Your task to perform on an android device: turn off translation in the chrome app Image 0: 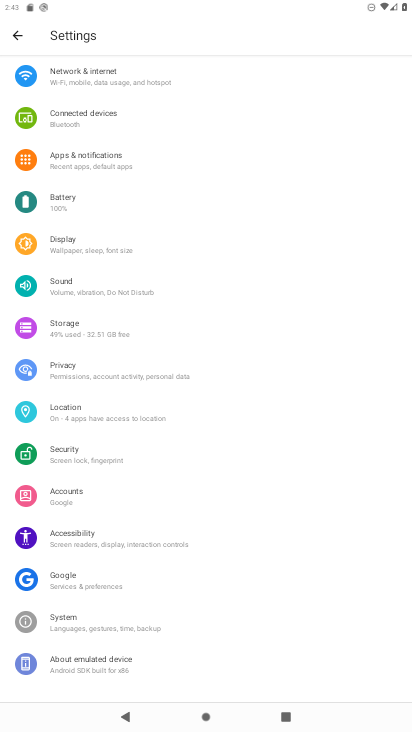
Step 0: press home button
Your task to perform on an android device: turn off translation in the chrome app Image 1: 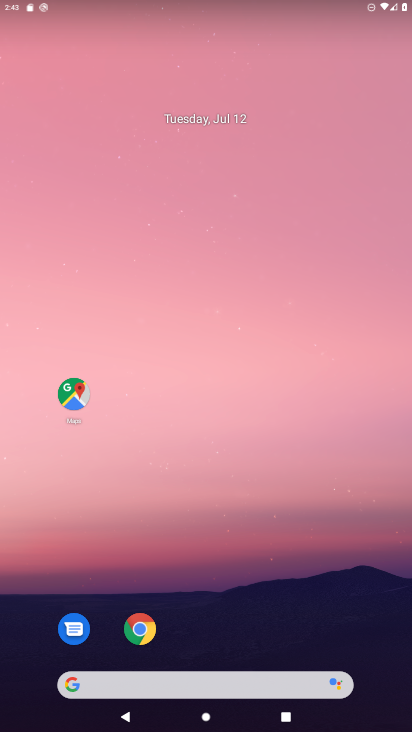
Step 1: drag from (179, 679) to (263, 217)
Your task to perform on an android device: turn off translation in the chrome app Image 2: 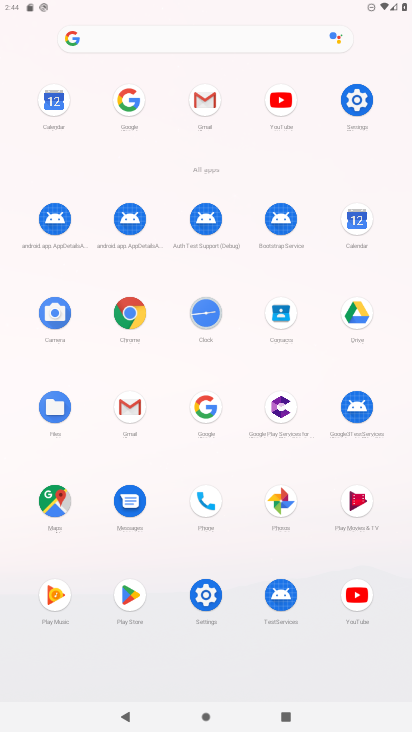
Step 2: click (130, 314)
Your task to perform on an android device: turn off translation in the chrome app Image 3: 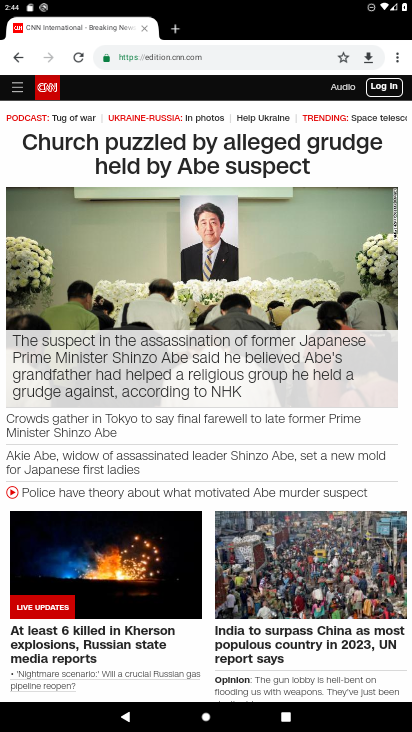
Step 3: click (398, 54)
Your task to perform on an android device: turn off translation in the chrome app Image 4: 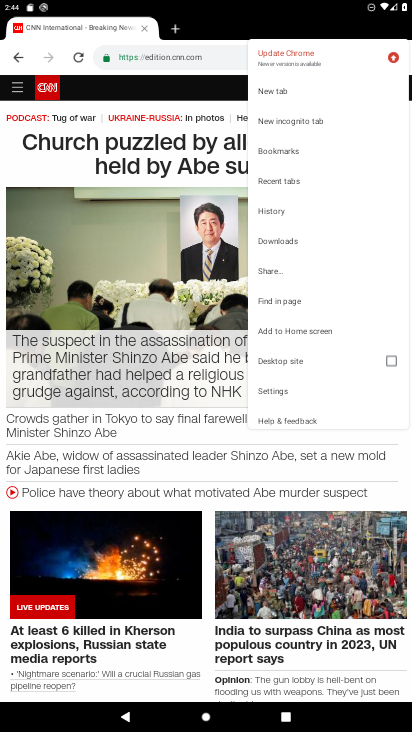
Step 4: click (277, 389)
Your task to perform on an android device: turn off translation in the chrome app Image 5: 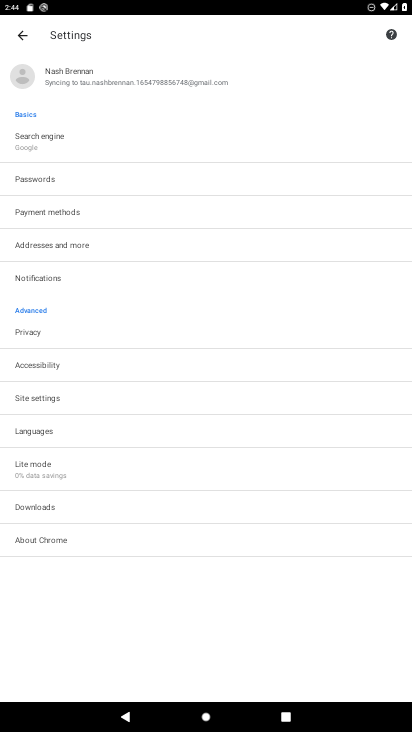
Step 5: click (43, 431)
Your task to perform on an android device: turn off translation in the chrome app Image 6: 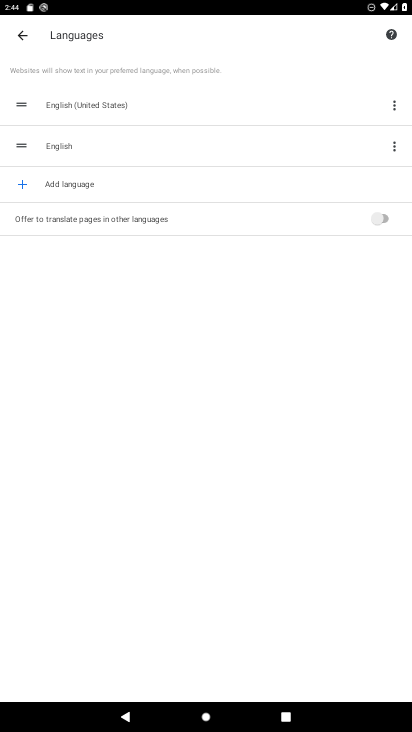
Step 6: task complete